Your task to perform on an android device: Clear all items from cart on bestbuy.com. Search for "usb-c" on bestbuy.com, select the first entry, and add it to the cart. Image 0: 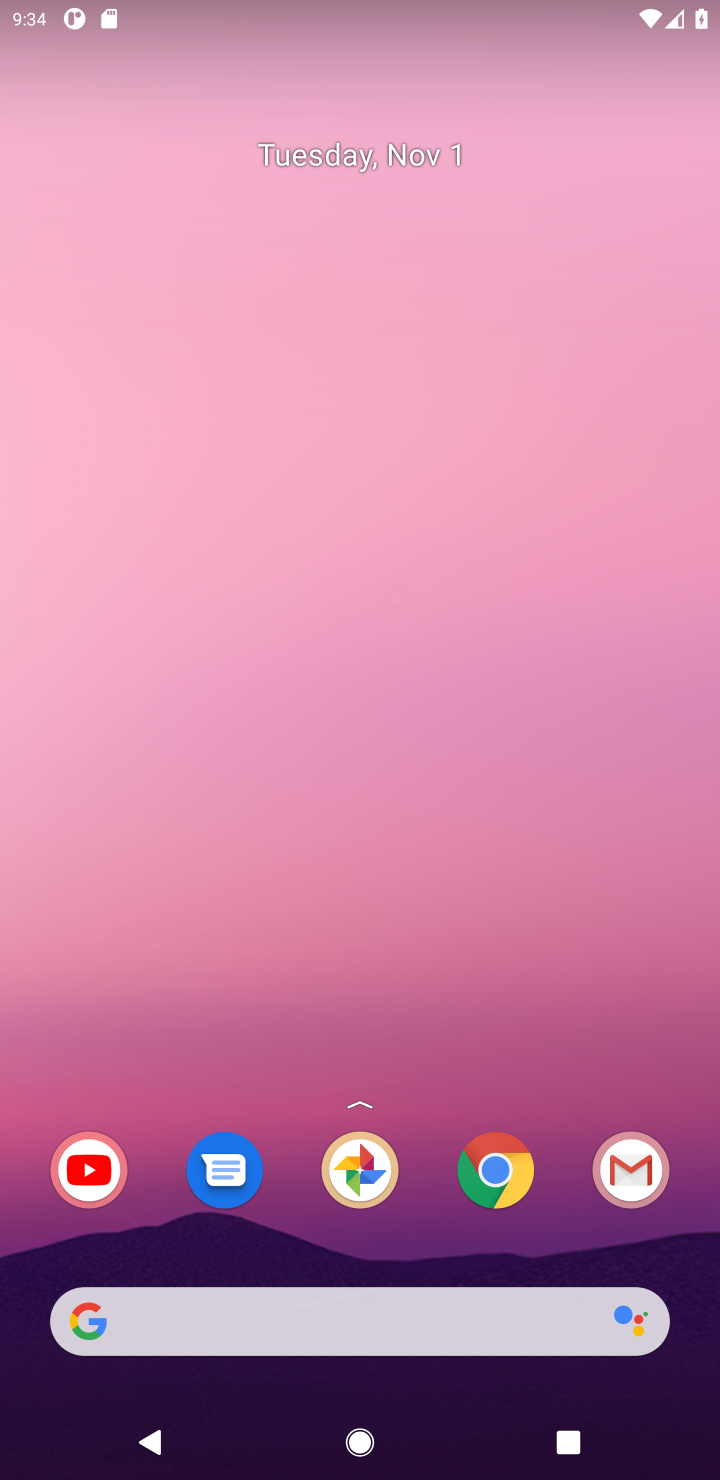
Step 0: click (508, 1164)
Your task to perform on an android device: Clear all items from cart on bestbuy.com. Search for "usb-c" on bestbuy.com, select the first entry, and add it to the cart. Image 1: 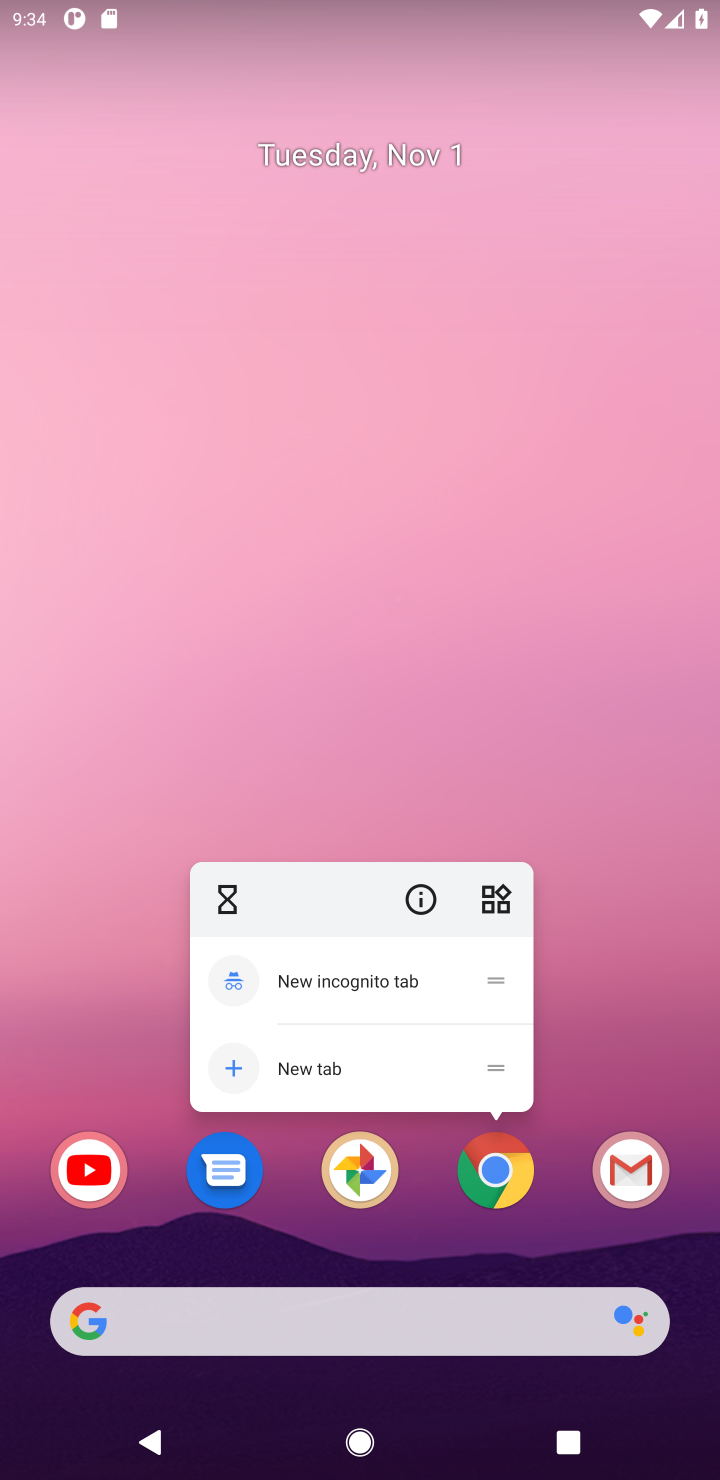
Step 1: click (479, 1175)
Your task to perform on an android device: Clear all items from cart on bestbuy.com. Search for "usb-c" on bestbuy.com, select the first entry, and add it to the cart. Image 2: 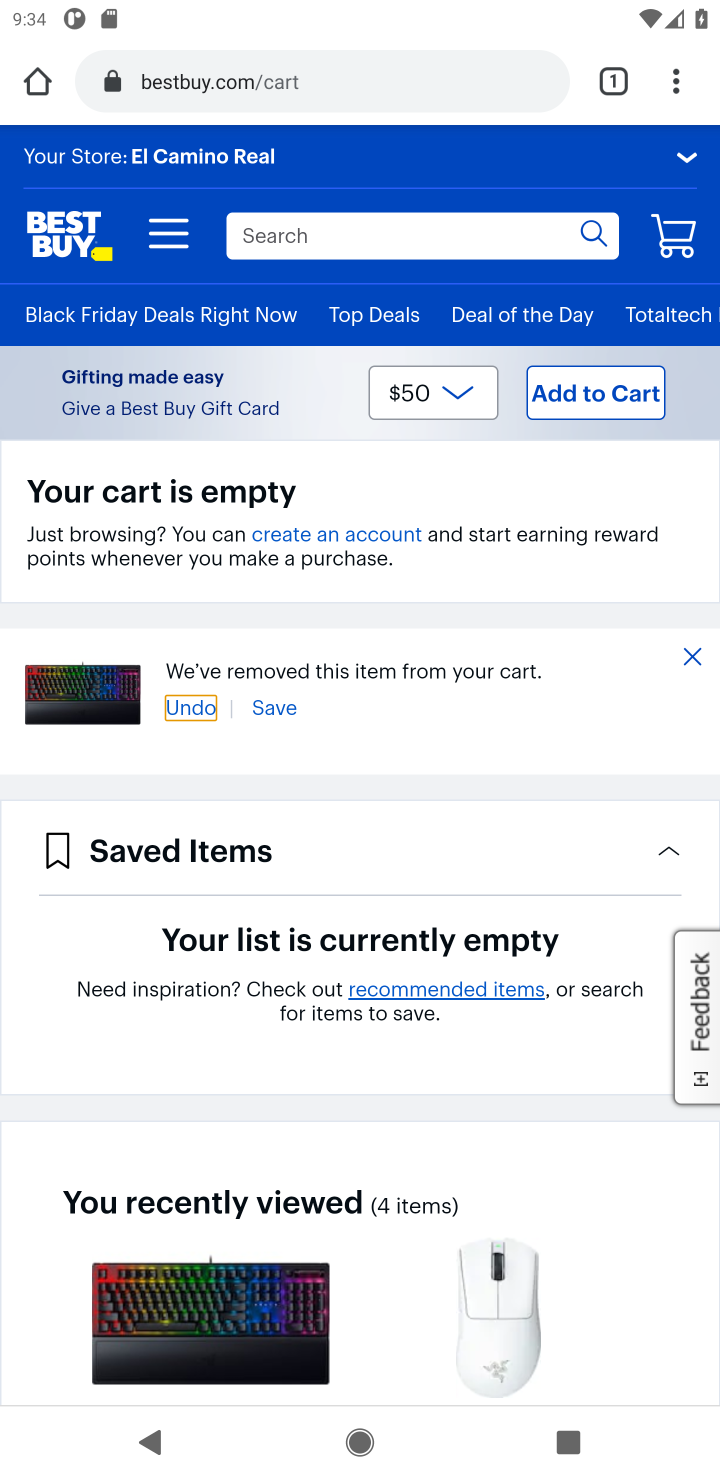
Step 2: click (325, 96)
Your task to perform on an android device: Clear all items from cart on bestbuy.com. Search for "usb-c" on bestbuy.com, select the first entry, and add it to the cart. Image 3: 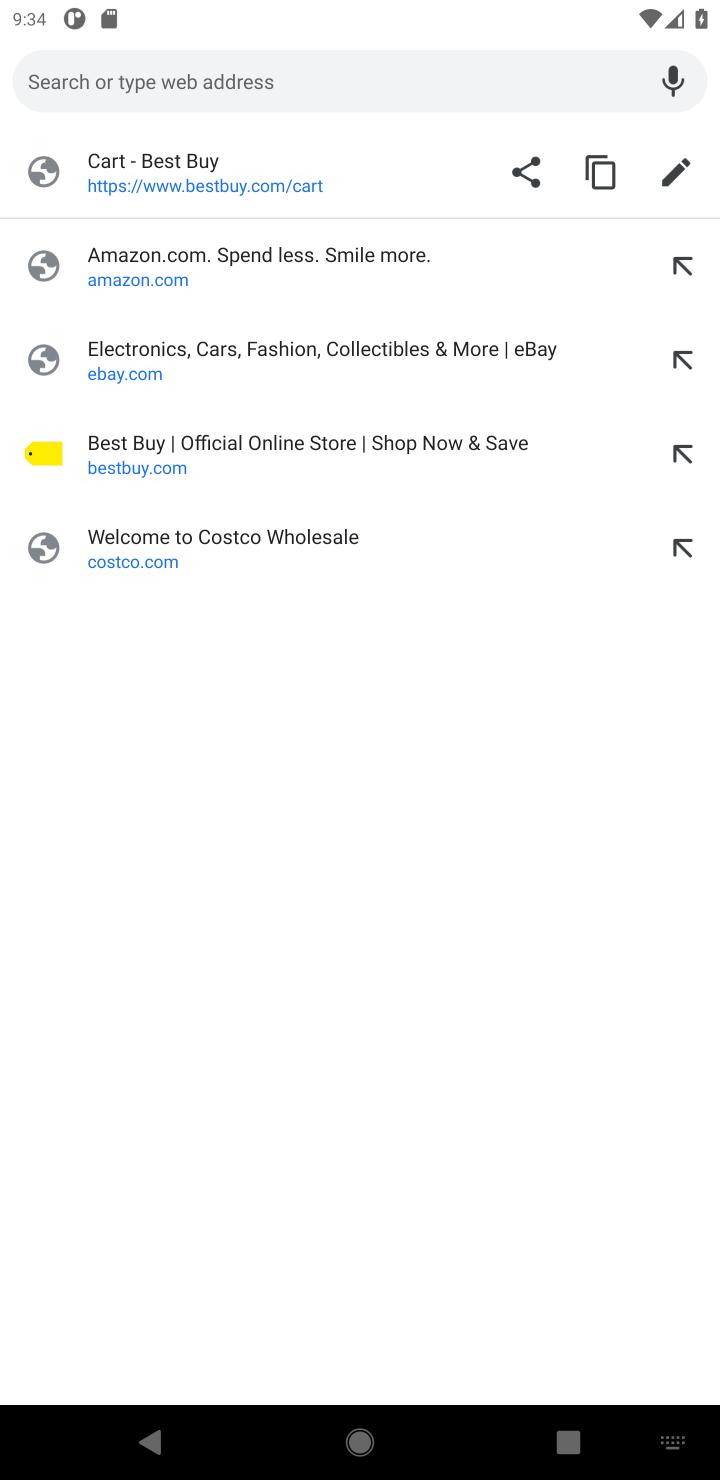
Step 3: type "bestbuy.com"
Your task to perform on an android device: Clear all items from cart on bestbuy.com. Search for "usb-c" on bestbuy.com, select the first entry, and add it to the cart. Image 4: 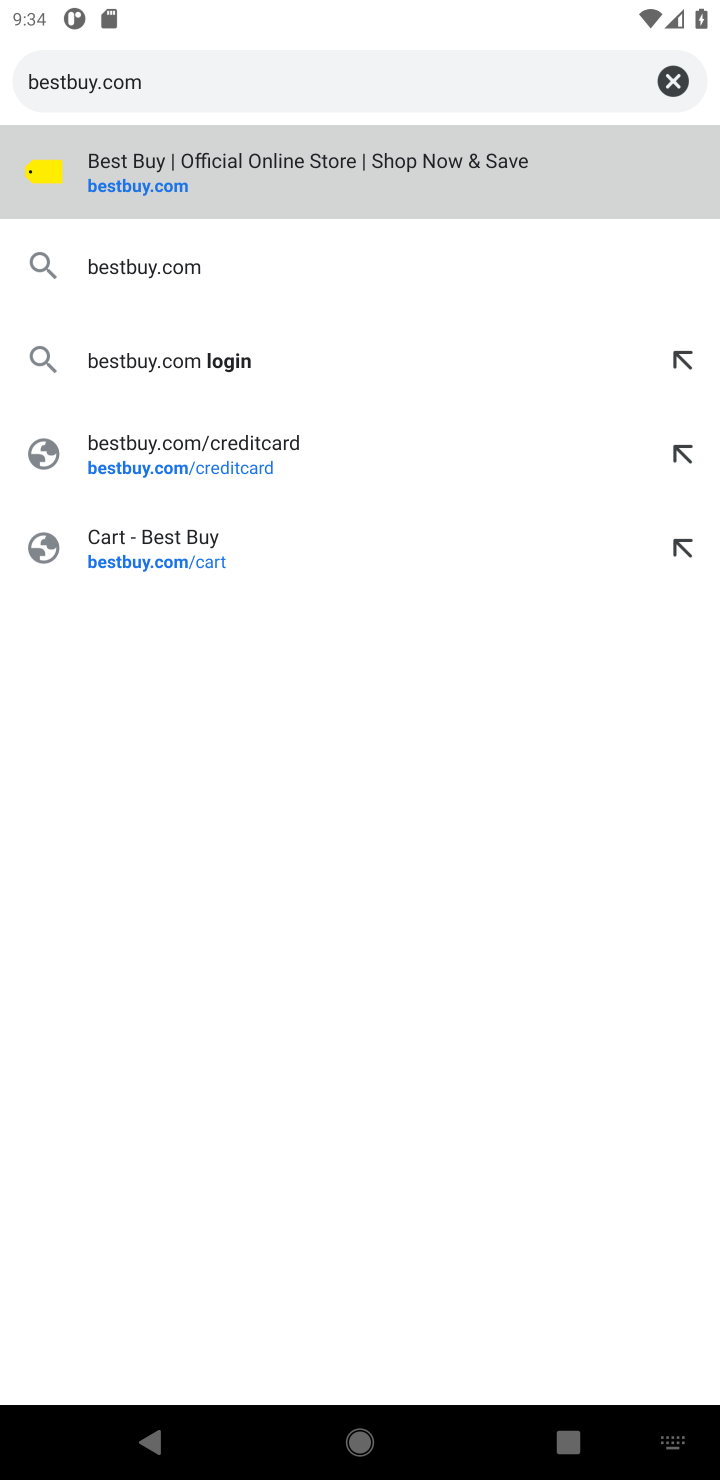
Step 4: press enter
Your task to perform on an android device: Clear all items from cart on bestbuy.com. Search for "usb-c" on bestbuy.com, select the first entry, and add it to the cart. Image 5: 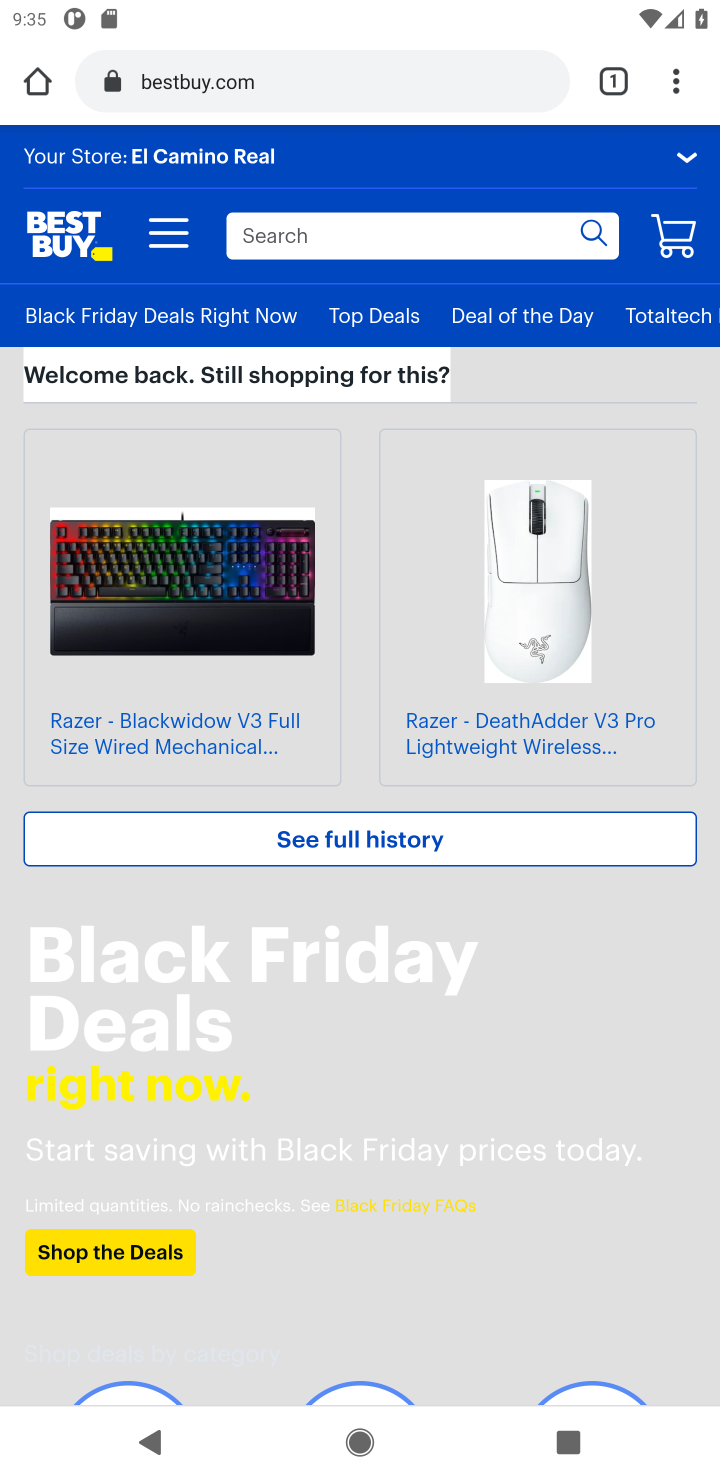
Step 5: click (421, 247)
Your task to perform on an android device: Clear all items from cart on bestbuy.com. Search for "usb-c" on bestbuy.com, select the first entry, and add it to the cart. Image 6: 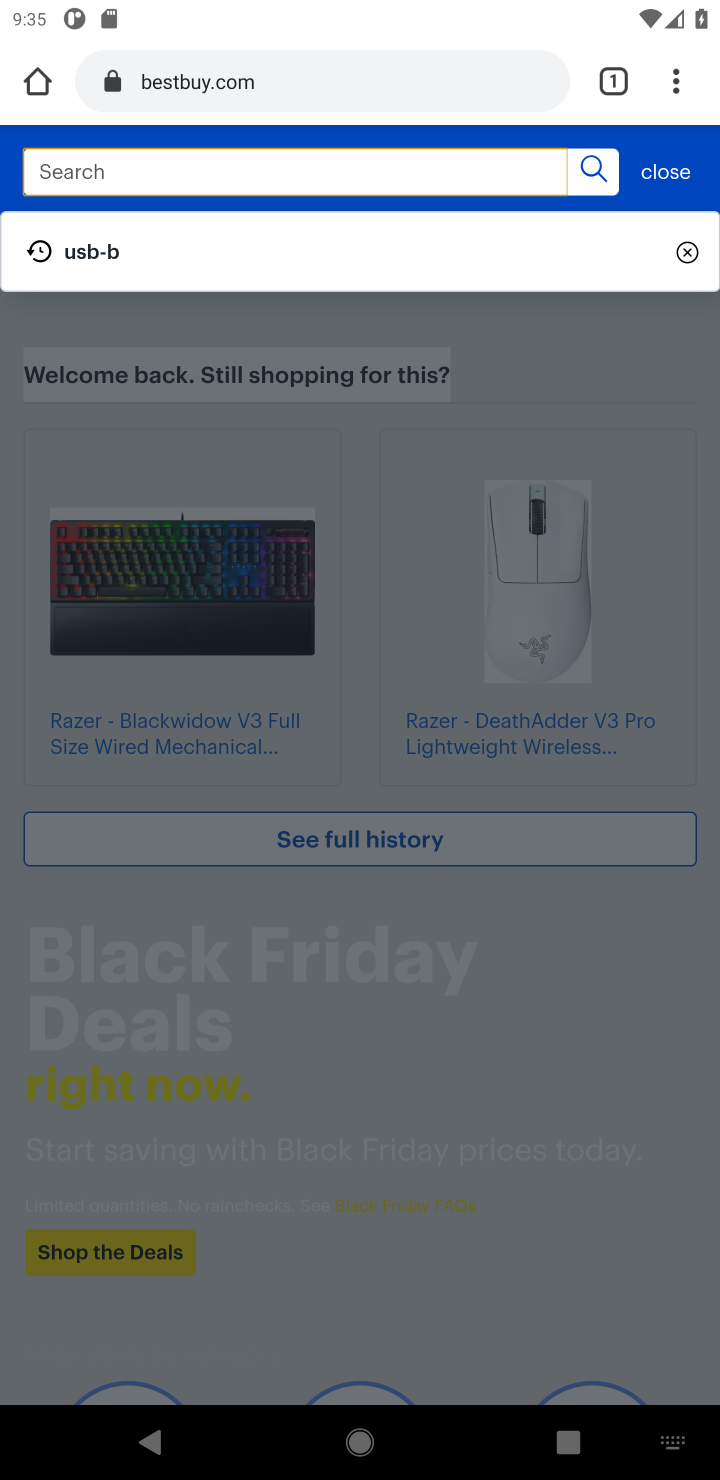
Step 6: click (684, 257)
Your task to perform on an android device: Clear all items from cart on bestbuy.com. Search for "usb-c" on bestbuy.com, select the first entry, and add it to the cart. Image 7: 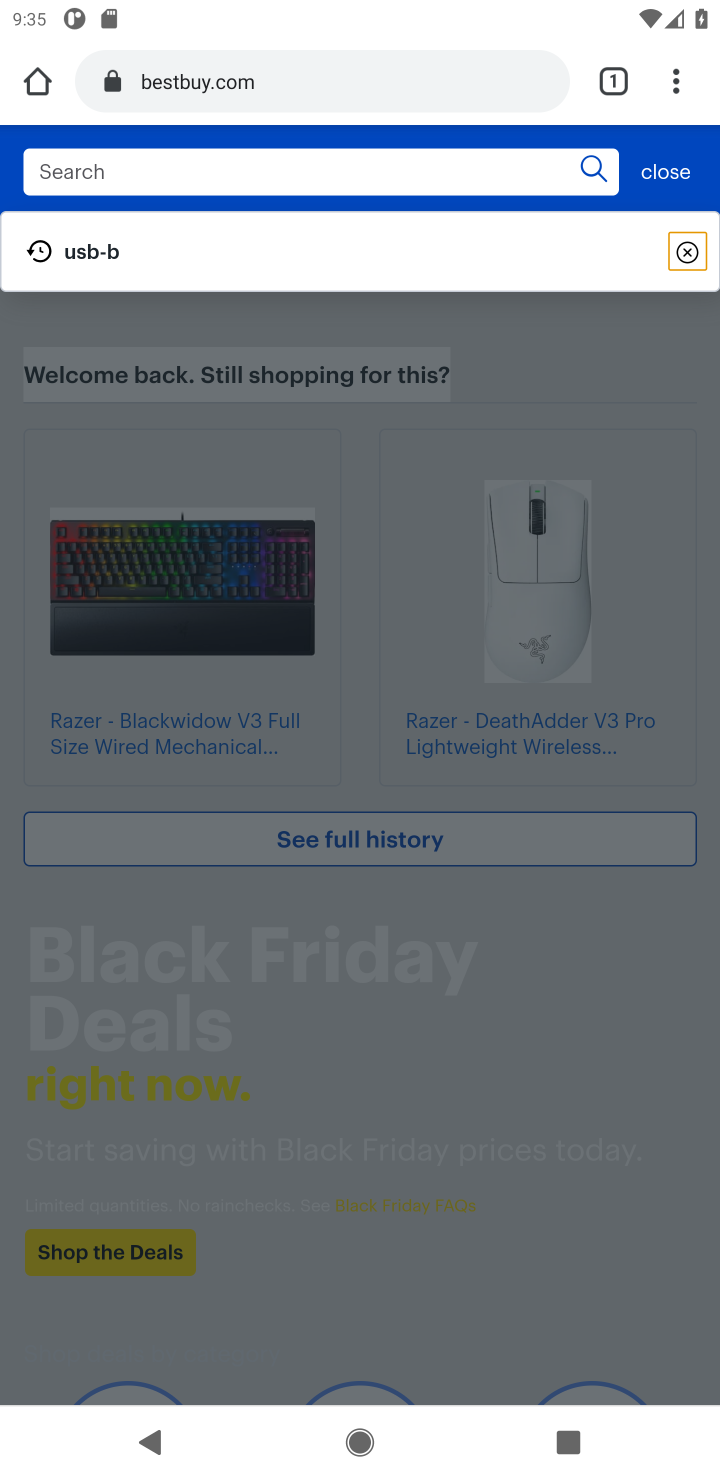
Step 7: click (650, 183)
Your task to perform on an android device: Clear all items from cart on bestbuy.com. Search for "usb-c" on bestbuy.com, select the first entry, and add it to the cart. Image 8: 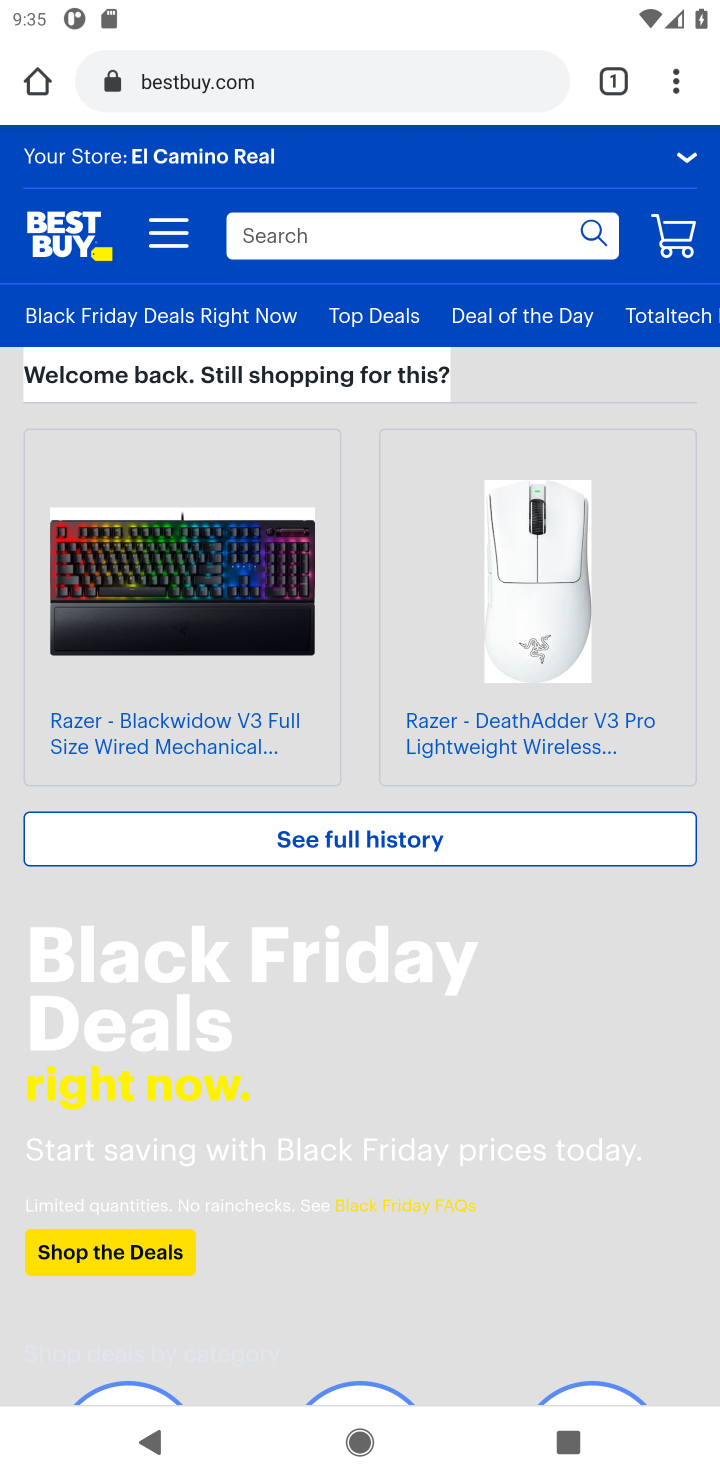
Step 8: click (680, 227)
Your task to perform on an android device: Clear all items from cart on bestbuy.com. Search for "usb-c" on bestbuy.com, select the first entry, and add it to the cart. Image 9: 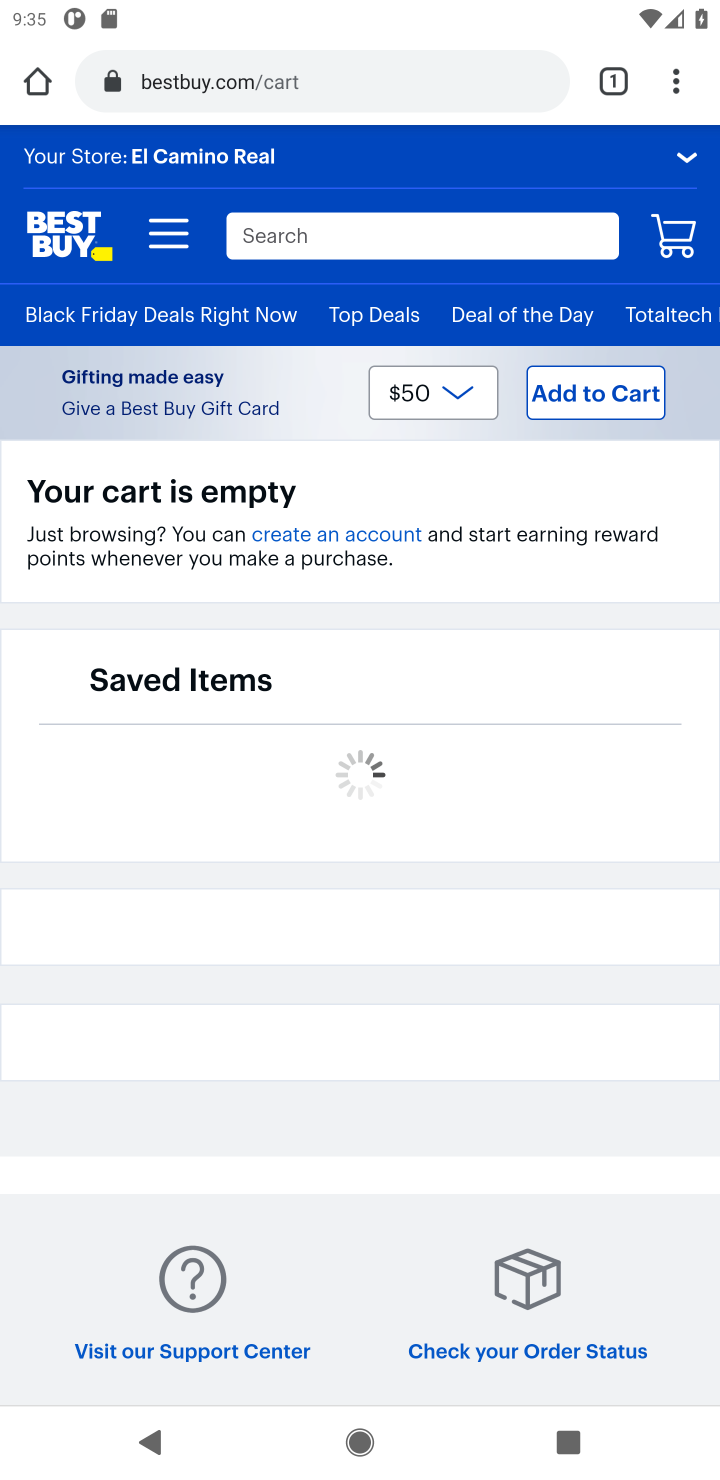
Step 9: click (408, 254)
Your task to perform on an android device: Clear all items from cart on bestbuy.com. Search for "usb-c" on bestbuy.com, select the first entry, and add it to the cart. Image 10: 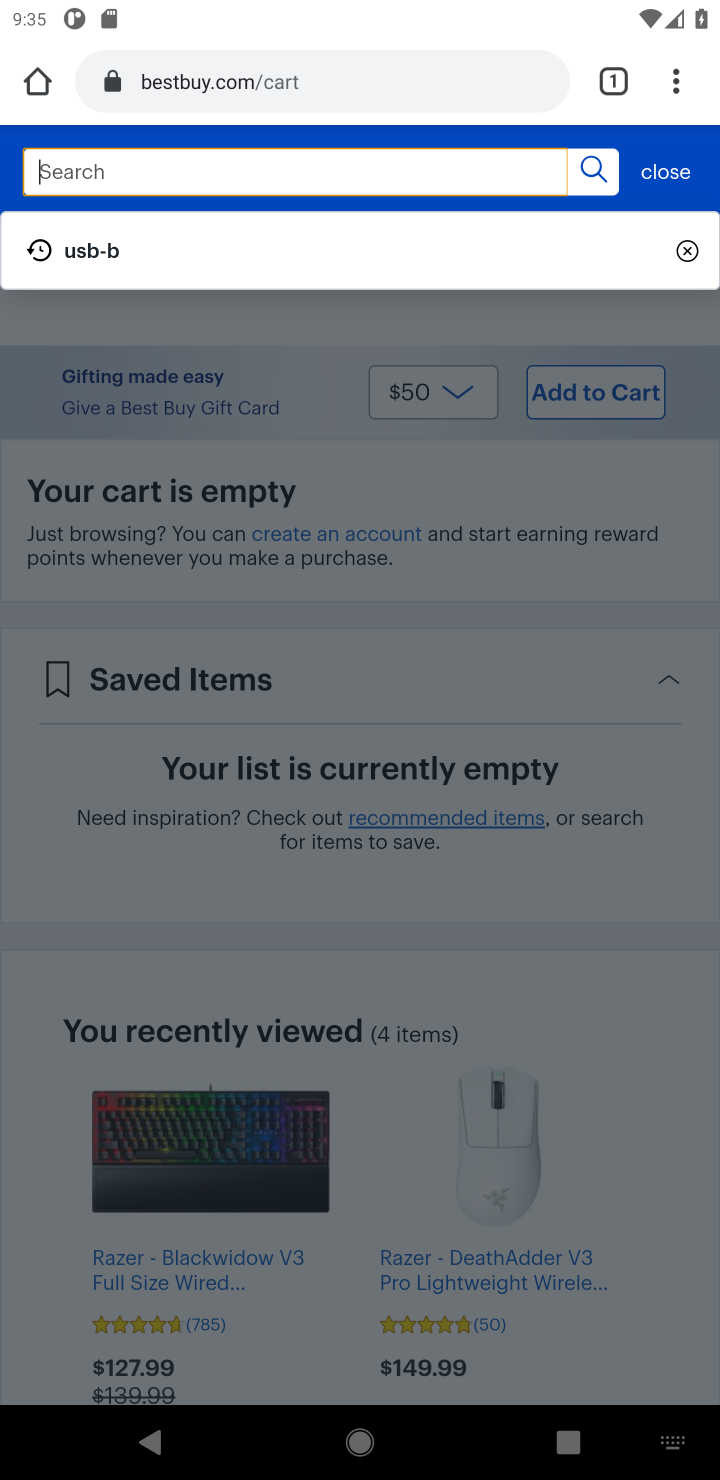
Step 10: type "usb-c"
Your task to perform on an android device: Clear all items from cart on bestbuy.com. Search for "usb-c" on bestbuy.com, select the first entry, and add it to the cart. Image 11: 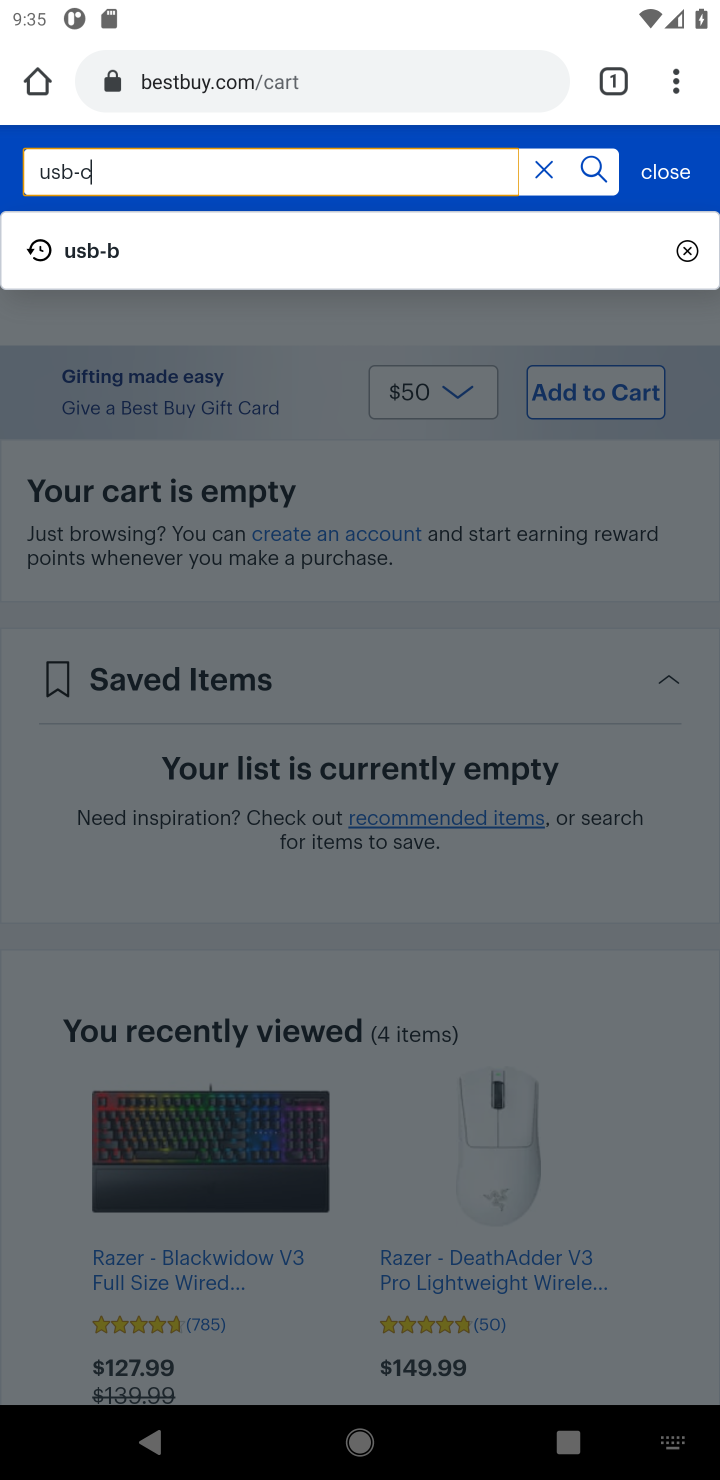
Step 11: type ""
Your task to perform on an android device: Clear all items from cart on bestbuy.com. Search for "usb-c" on bestbuy.com, select the first entry, and add it to the cart. Image 12: 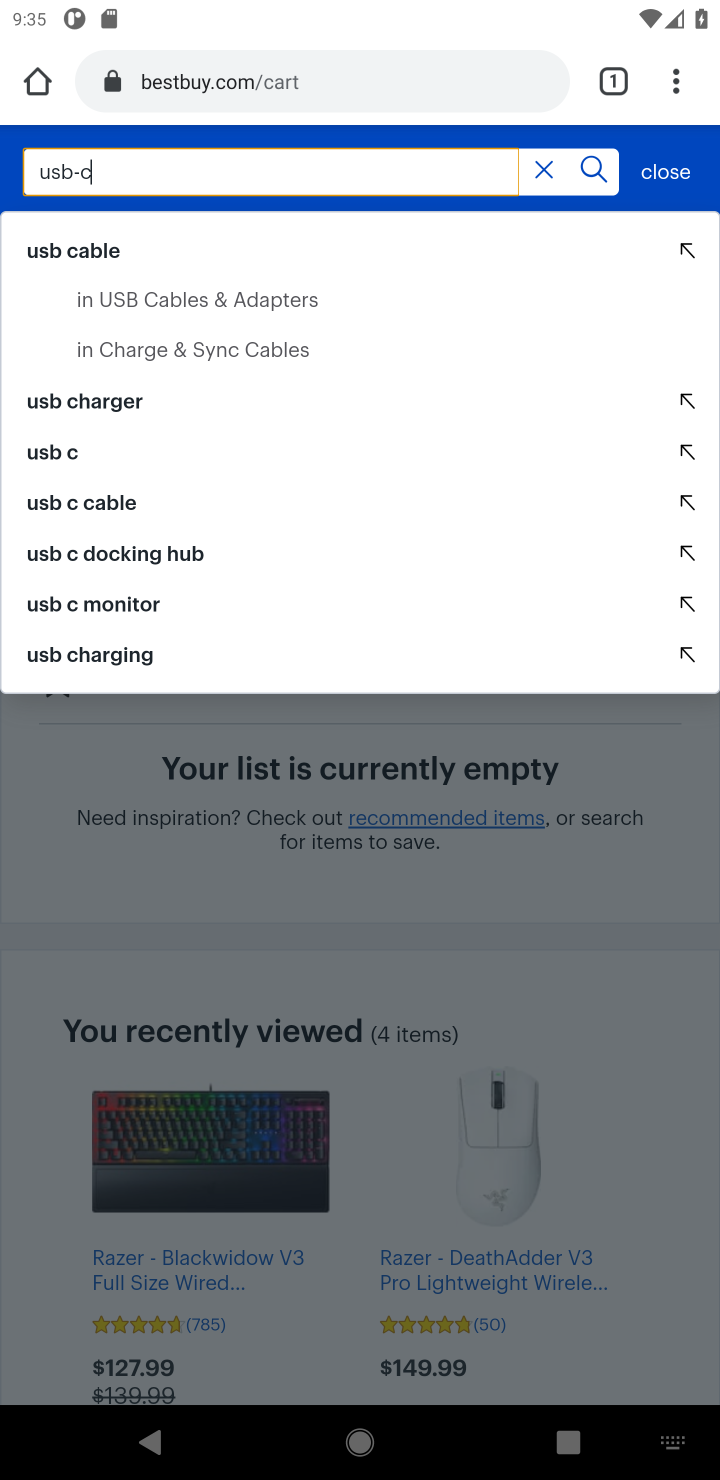
Step 12: press enter
Your task to perform on an android device: Clear all items from cart on bestbuy.com. Search for "usb-c" on bestbuy.com, select the first entry, and add it to the cart. Image 13: 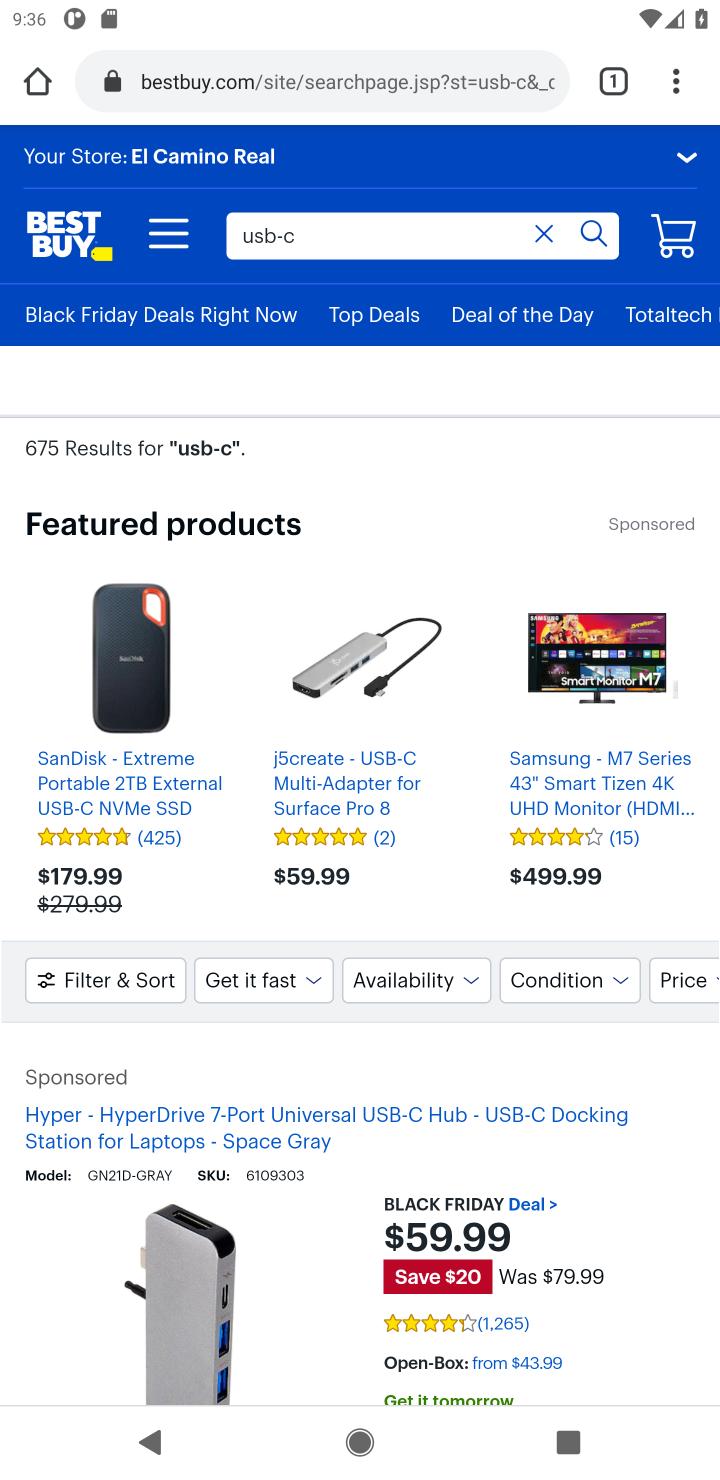
Step 13: click (391, 1113)
Your task to perform on an android device: Clear all items from cart on bestbuy.com. Search for "usb-c" on bestbuy.com, select the first entry, and add it to the cart. Image 14: 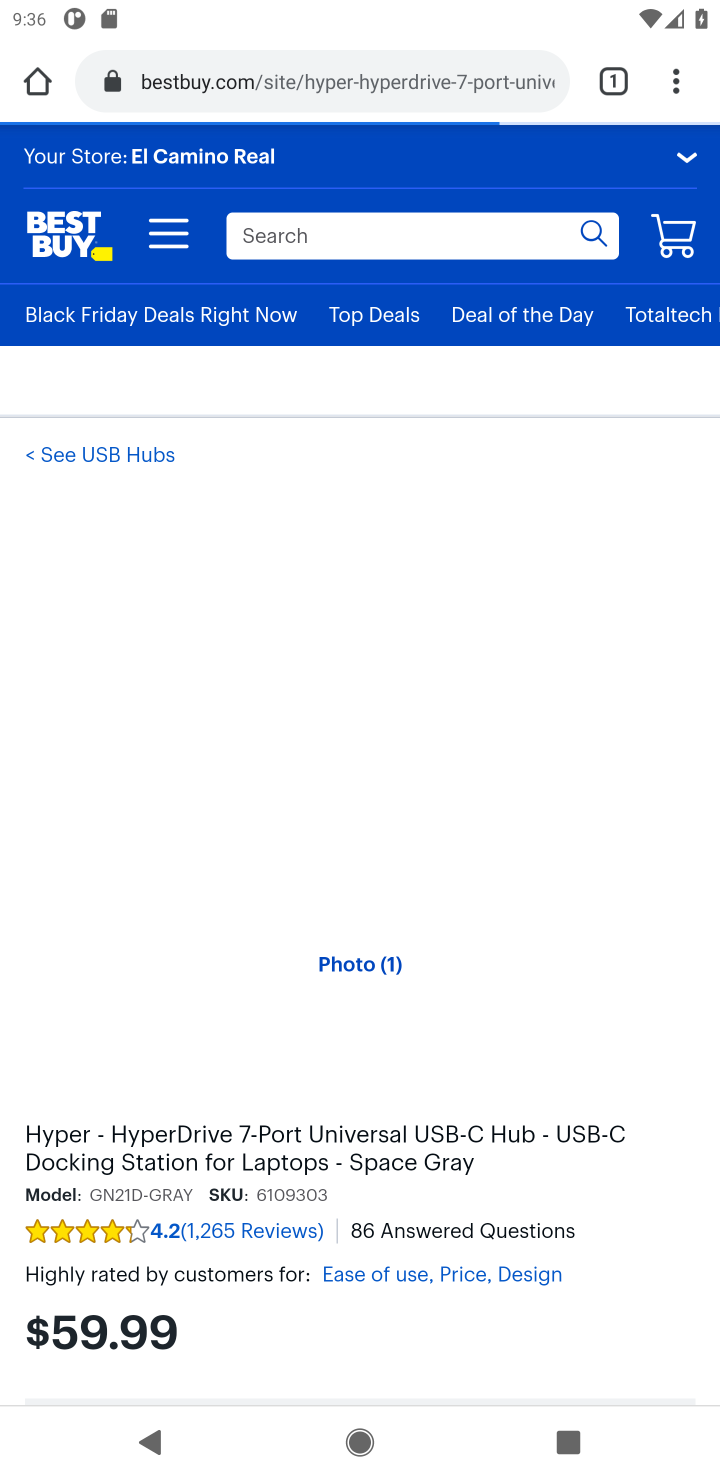
Step 14: drag from (601, 1284) to (448, 561)
Your task to perform on an android device: Clear all items from cart on bestbuy.com. Search for "usb-c" on bestbuy.com, select the first entry, and add it to the cart. Image 15: 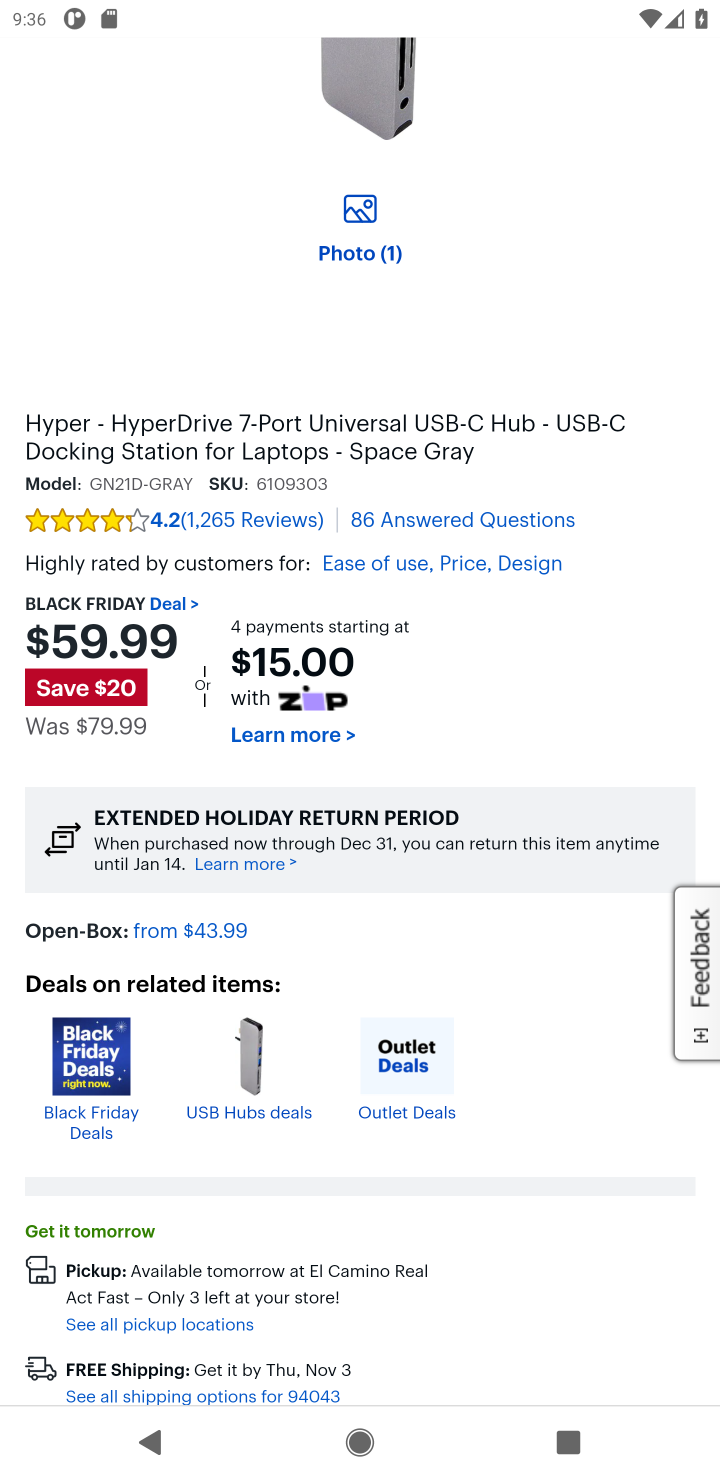
Step 15: drag from (565, 1205) to (526, 912)
Your task to perform on an android device: Clear all items from cart on bestbuy.com. Search for "usb-c" on bestbuy.com, select the first entry, and add it to the cart. Image 16: 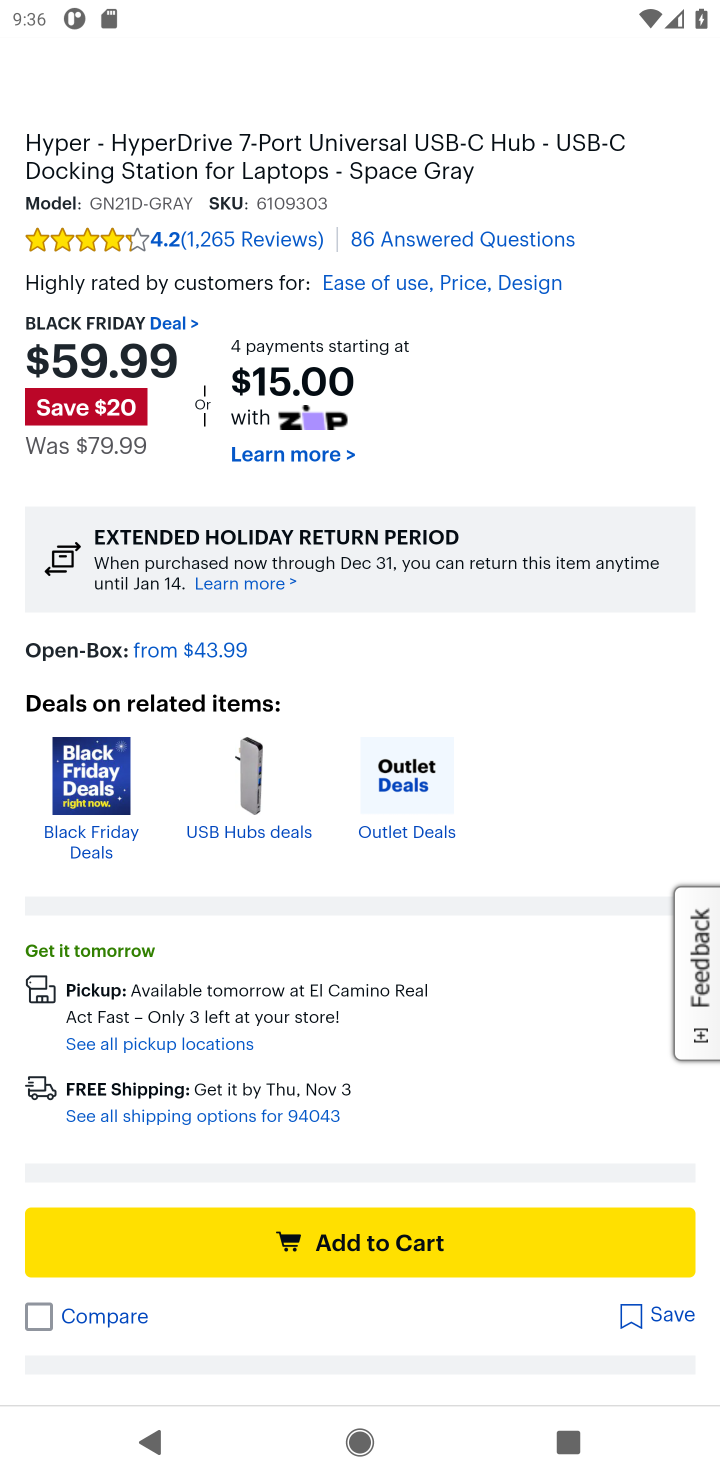
Step 16: click (338, 1250)
Your task to perform on an android device: Clear all items from cart on bestbuy.com. Search for "usb-c" on bestbuy.com, select the first entry, and add it to the cart. Image 17: 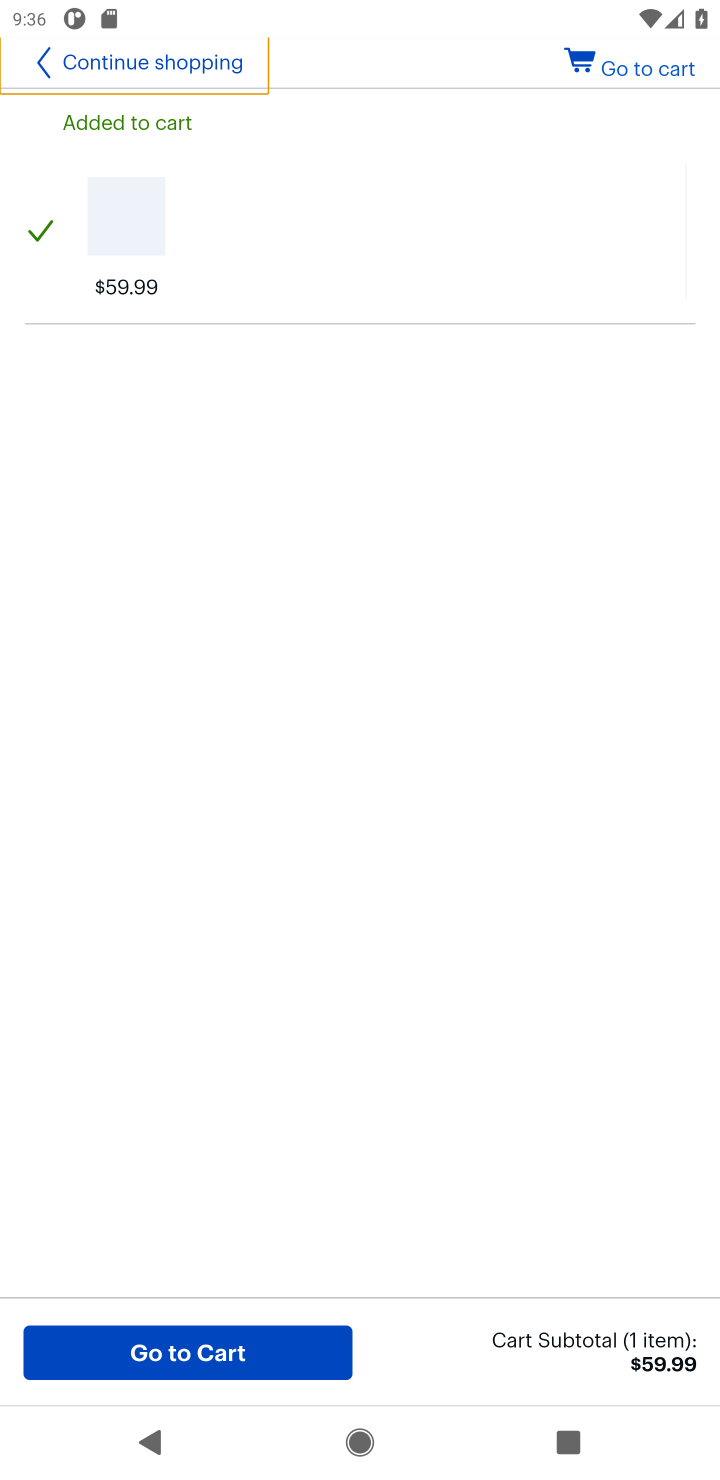
Step 17: click (250, 1350)
Your task to perform on an android device: Clear all items from cart on bestbuy.com. Search for "usb-c" on bestbuy.com, select the first entry, and add it to the cart. Image 18: 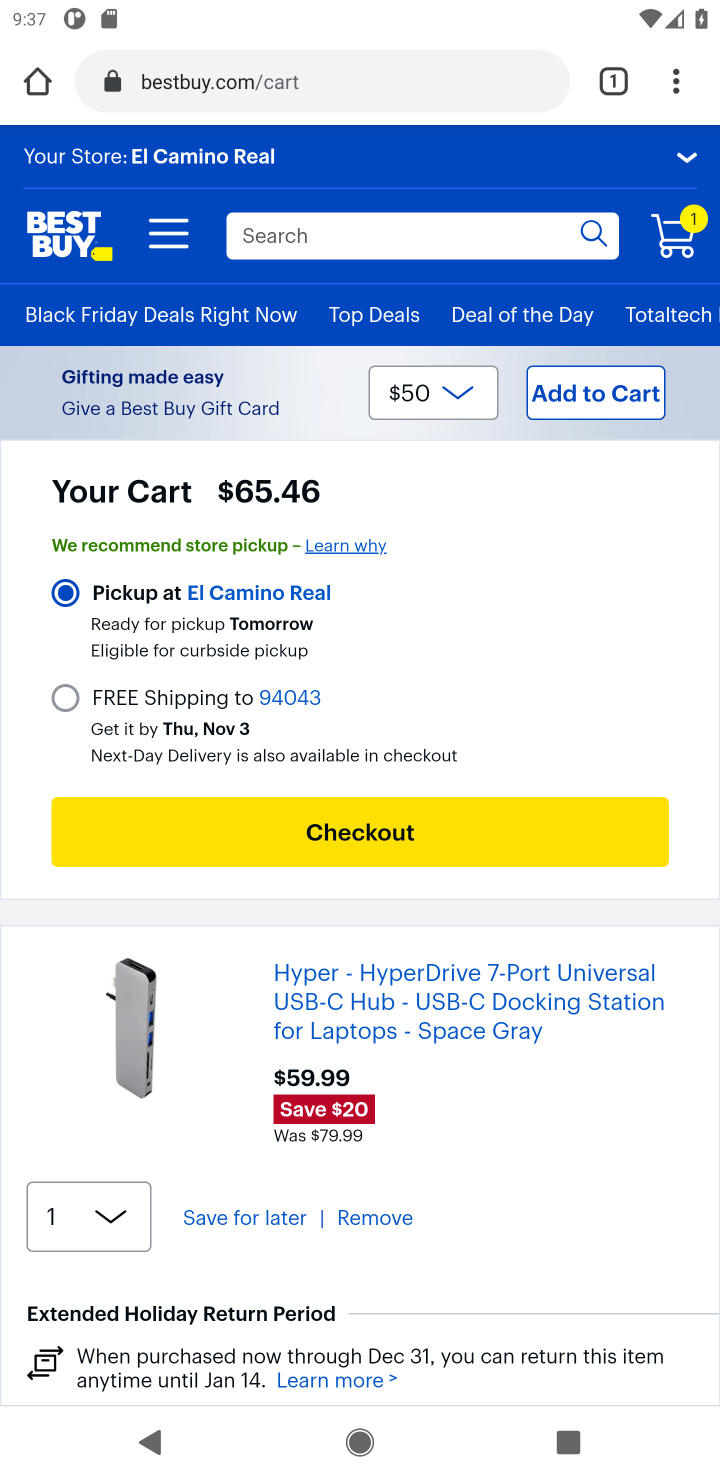
Step 18: task complete